Your task to perform on an android device: What's on my calendar tomorrow? Image 0: 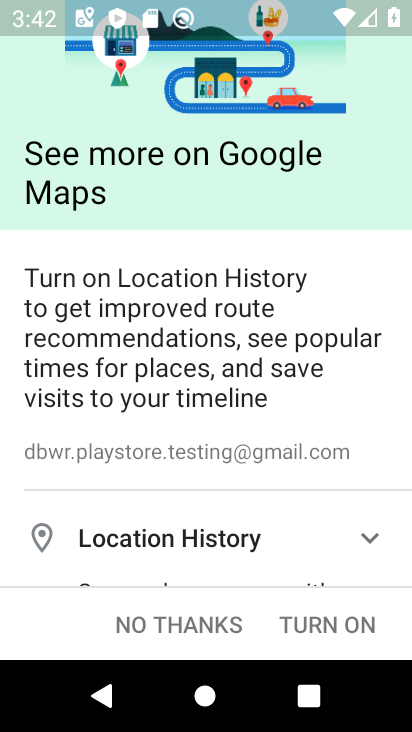
Step 0: press home button
Your task to perform on an android device: What's on my calendar tomorrow? Image 1: 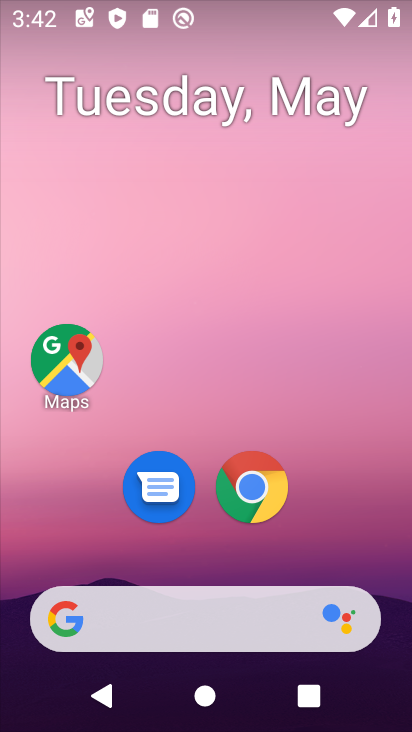
Step 1: drag from (218, 543) to (263, 39)
Your task to perform on an android device: What's on my calendar tomorrow? Image 2: 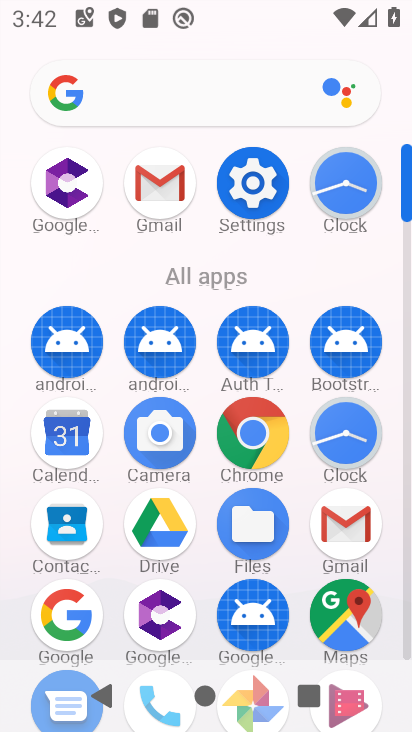
Step 2: click (69, 441)
Your task to perform on an android device: What's on my calendar tomorrow? Image 3: 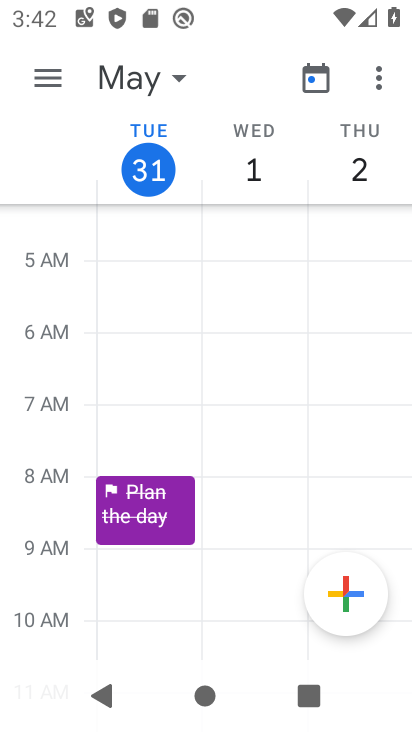
Step 3: click (38, 82)
Your task to perform on an android device: What's on my calendar tomorrow? Image 4: 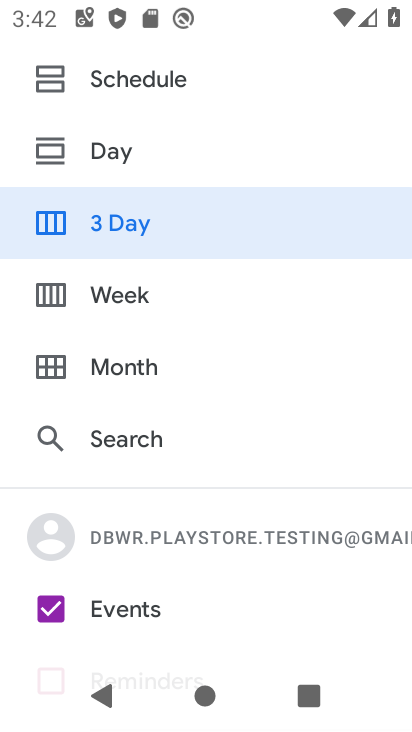
Step 4: click (130, 159)
Your task to perform on an android device: What's on my calendar tomorrow? Image 5: 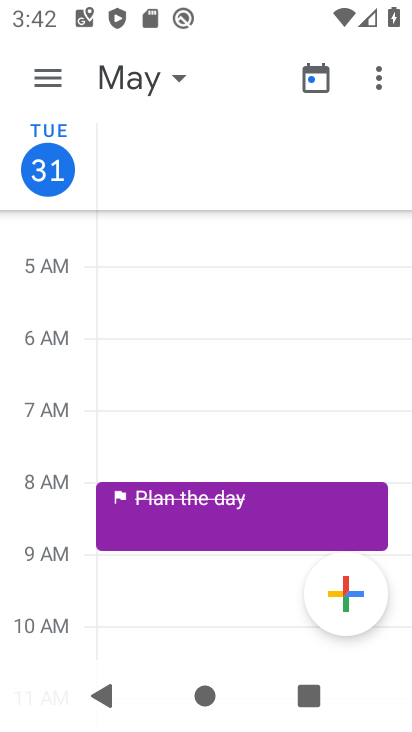
Step 5: task complete